Your task to perform on an android device: open app "eBay: The shopping marketplace" Image 0: 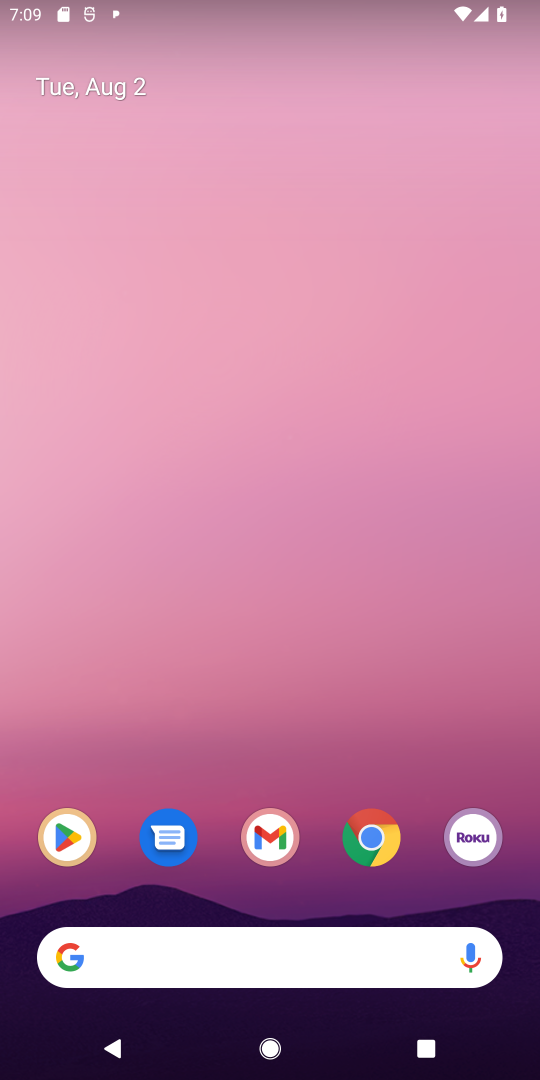
Step 0: click (75, 842)
Your task to perform on an android device: open app "eBay: The shopping marketplace" Image 1: 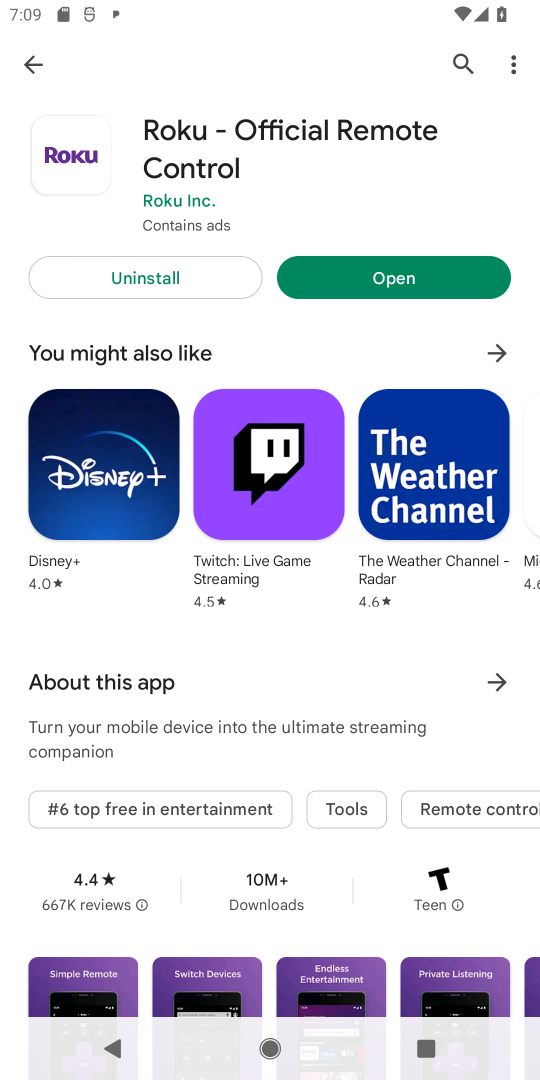
Step 1: click (466, 65)
Your task to perform on an android device: open app "eBay: The shopping marketplace" Image 2: 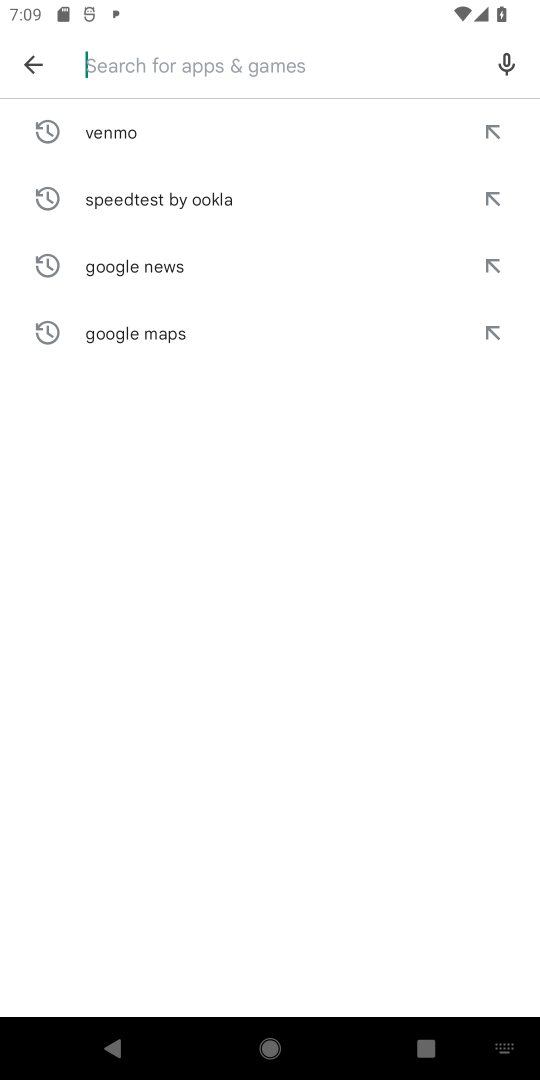
Step 2: type "eBay: The shopping marketplace"
Your task to perform on an android device: open app "eBay: The shopping marketplace" Image 3: 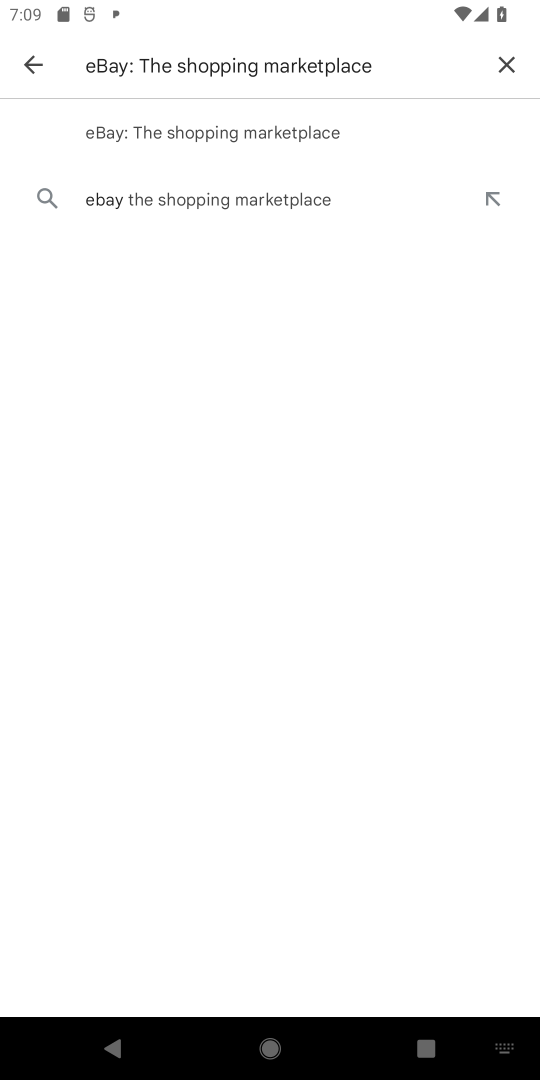
Step 3: click (185, 139)
Your task to perform on an android device: open app "eBay: The shopping marketplace" Image 4: 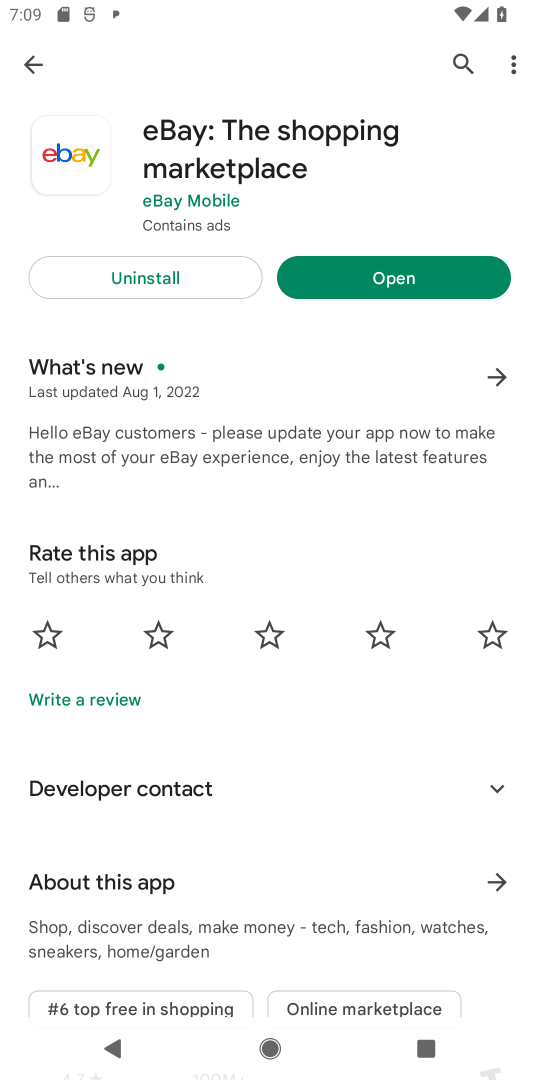
Step 4: click (381, 282)
Your task to perform on an android device: open app "eBay: The shopping marketplace" Image 5: 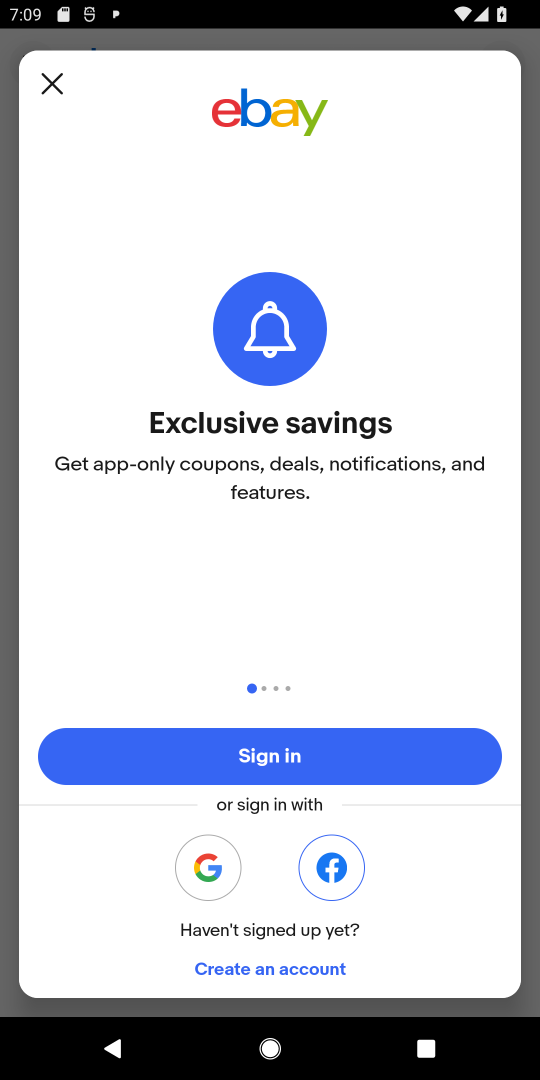
Step 5: task complete